Your task to perform on an android device: open app "Nova Launcher" Image 0: 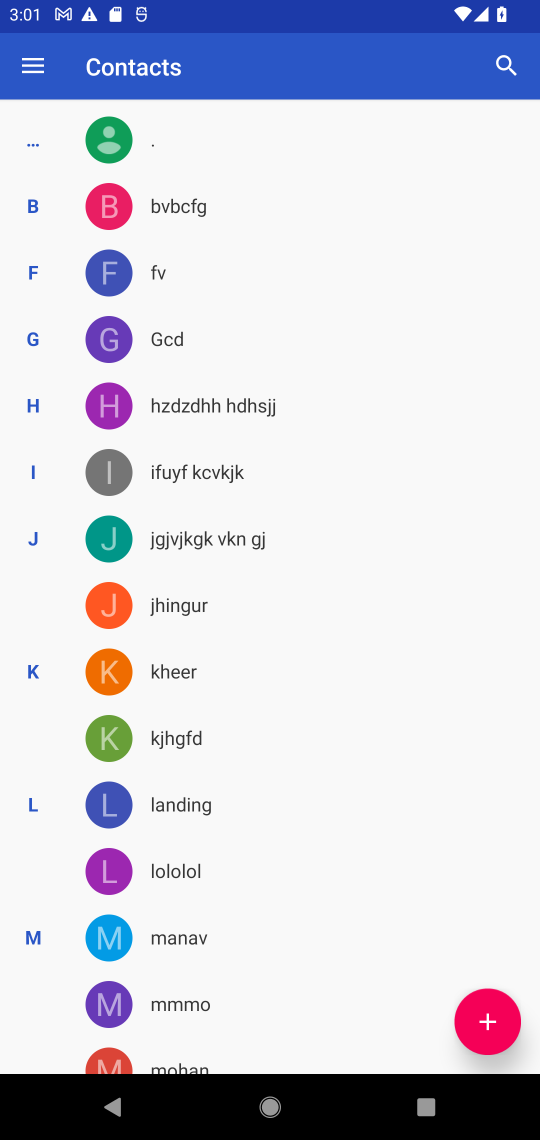
Step 0: press home button
Your task to perform on an android device: open app "Nova Launcher" Image 1: 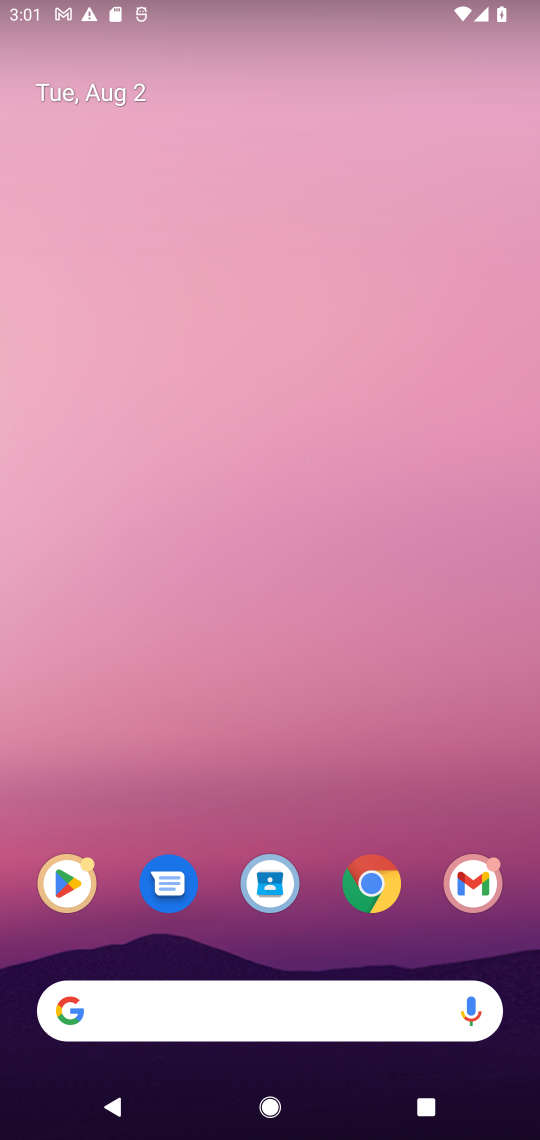
Step 1: click (76, 883)
Your task to perform on an android device: open app "Nova Launcher" Image 2: 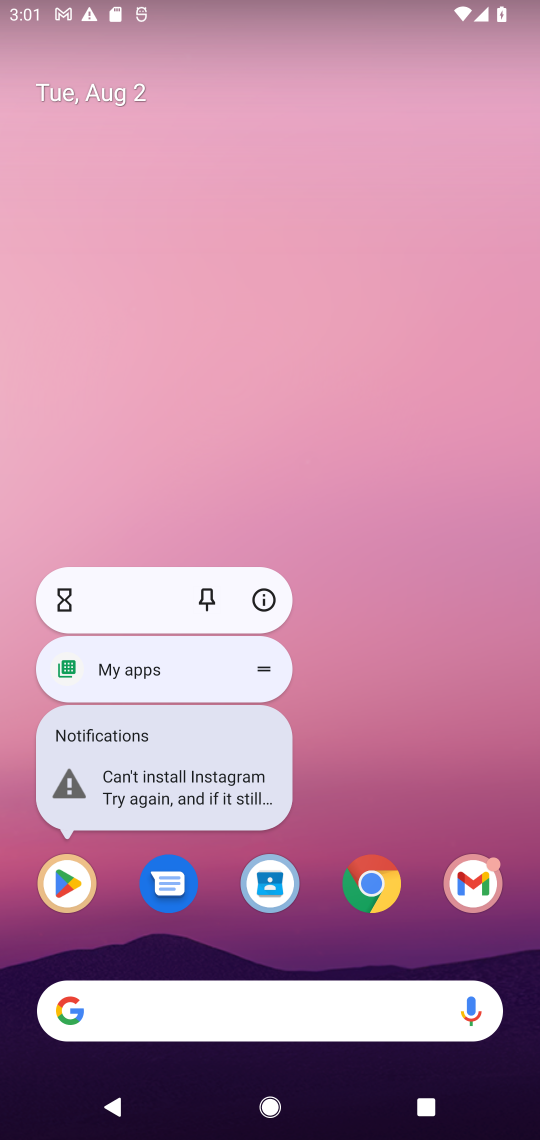
Step 2: click (61, 882)
Your task to perform on an android device: open app "Nova Launcher" Image 3: 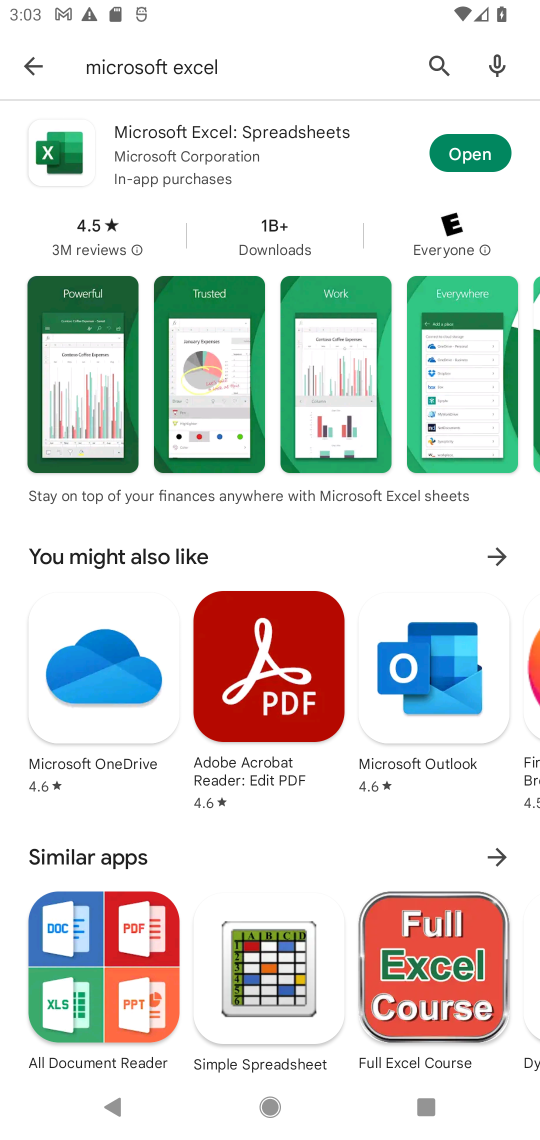
Step 3: click (441, 68)
Your task to perform on an android device: open app "Nova Launcher" Image 4: 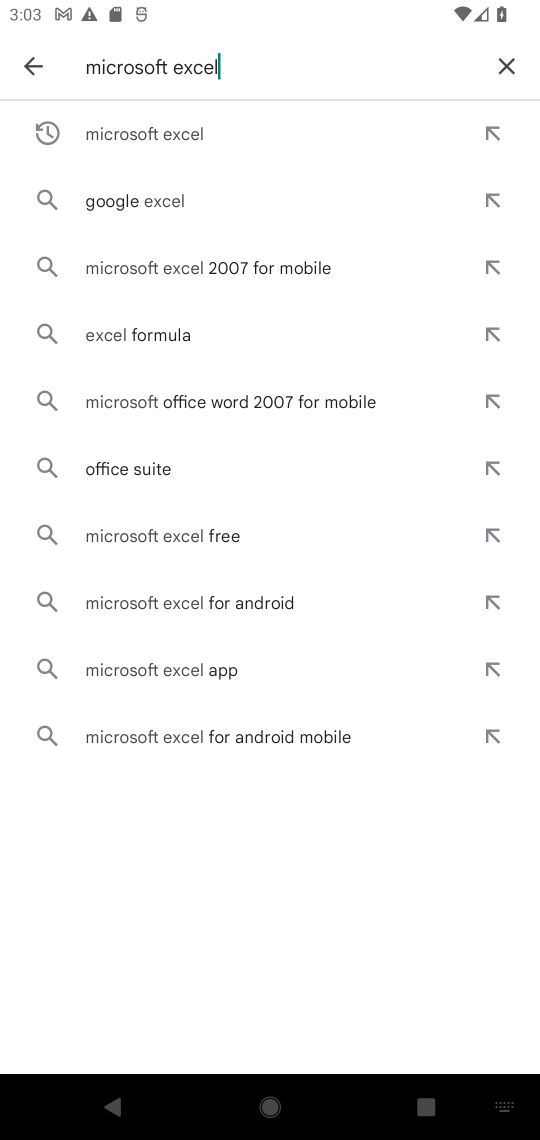
Step 4: click (507, 68)
Your task to perform on an android device: open app "Nova Launcher" Image 5: 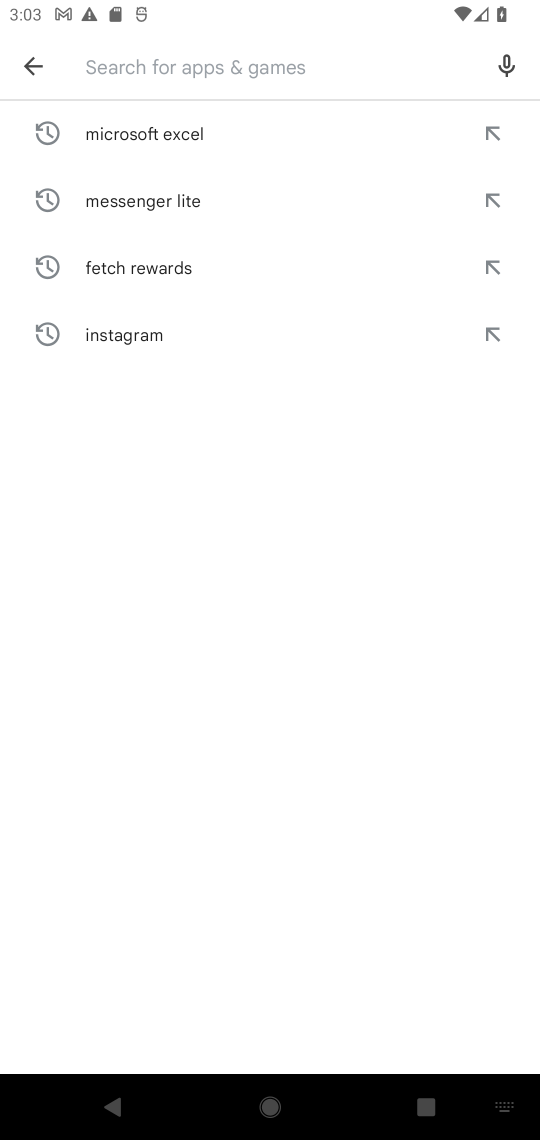
Step 5: type "Nova Launcher"
Your task to perform on an android device: open app "Nova Launcher" Image 6: 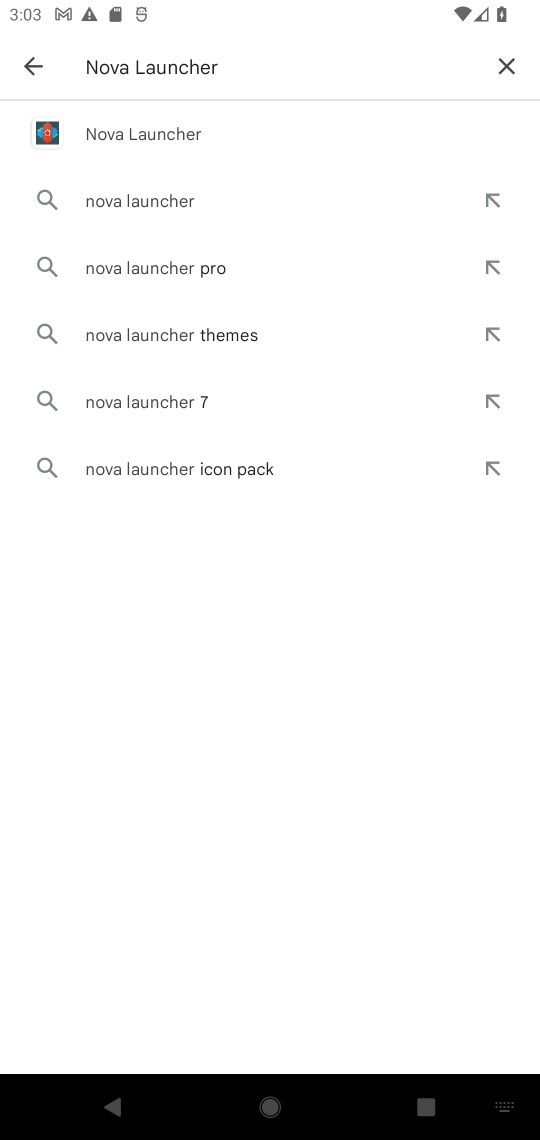
Step 6: click (100, 153)
Your task to perform on an android device: open app "Nova Launcher" Image 7: 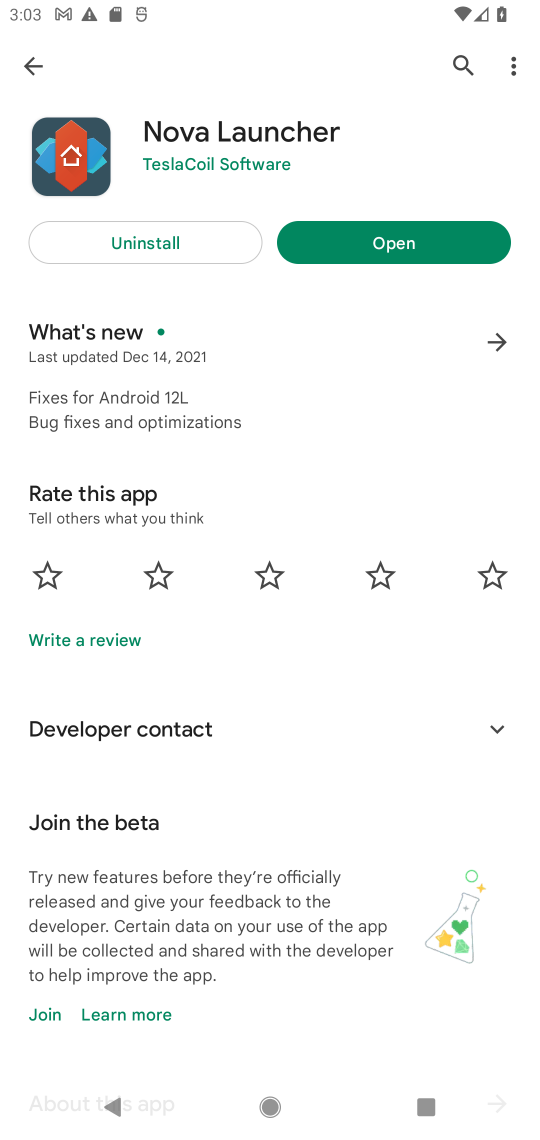
Step 7: click (401, 250)
Your task to perform on an android device: open app "Nova Launcher" Image 8: 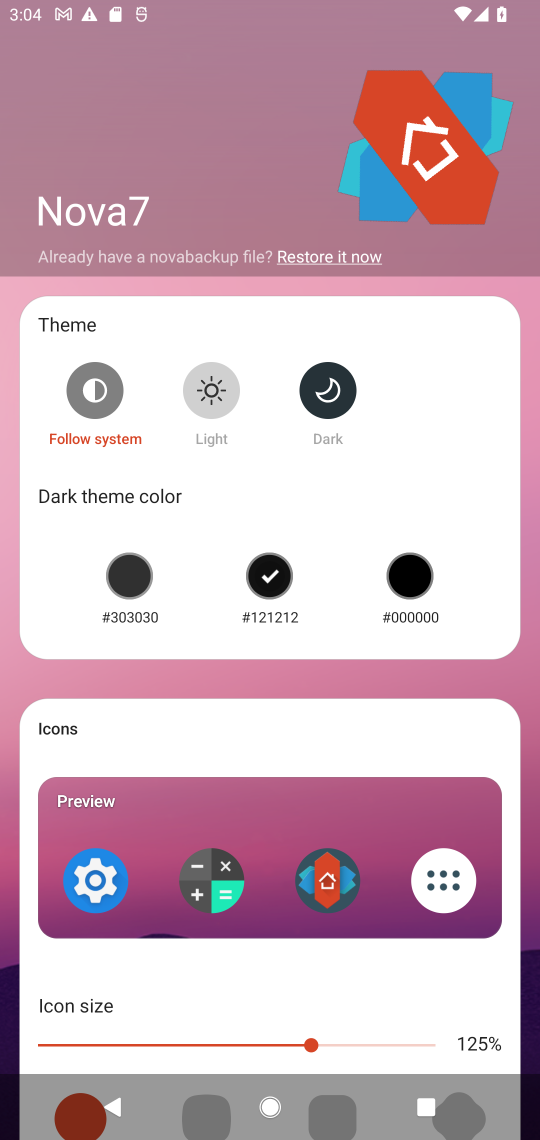
Step 8: task complete